Your task to perform on an android device: Open Chrome and go to settings Image 0: 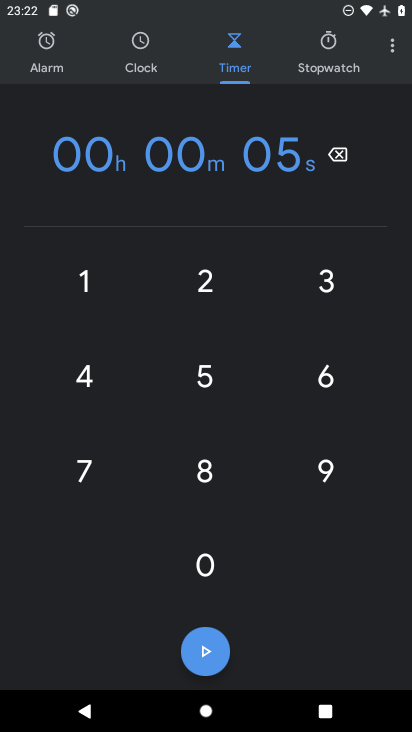
Step 0: press home button
Your task to perform on an android device: Open Chrome and go to settings Image 1: 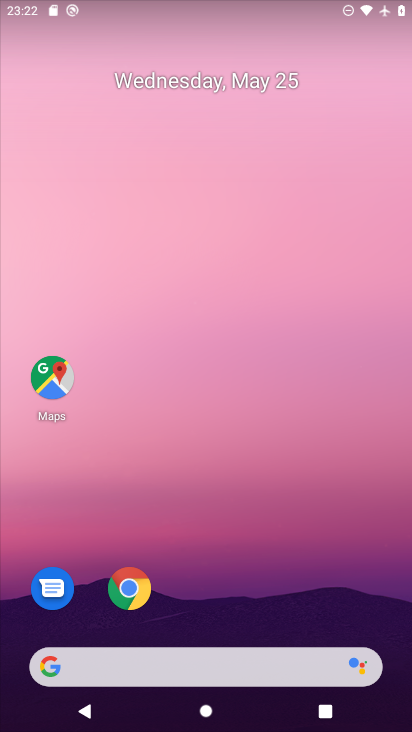
Step 1: drag from (270, 546) to (316, 120)
Your task to perform on an android device: Open Chrome and go to settings Image 2: 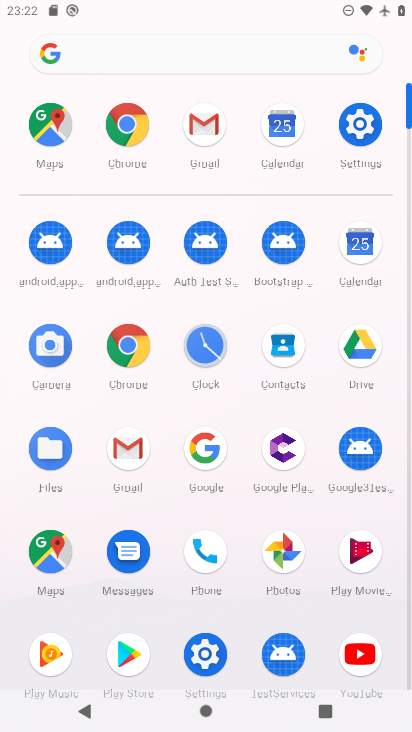
Step 2: click (133, 131)
Your task to perform on an android device: Open Chrome and go to settings Image 3: 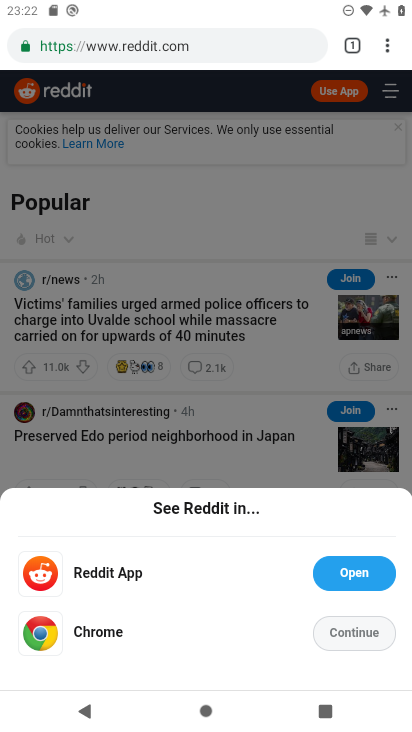
Step 3: click (384, 38)
Your task to perform on an android device: Open Chrome and go to settings Image 4: 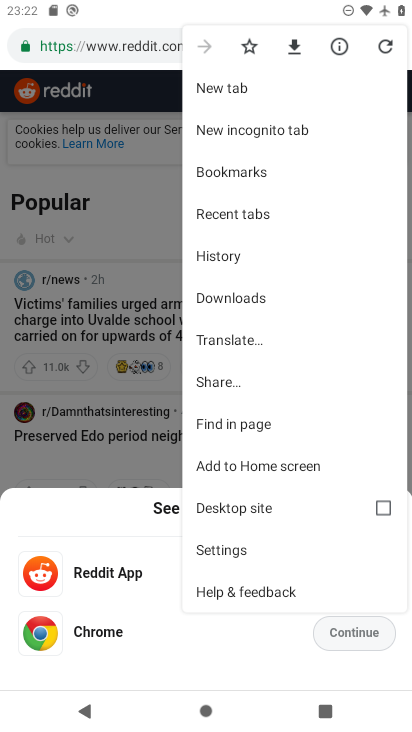
Step 4: click (218, 557)
Your task to perform on an android device: Open Chrome and go to settings Image 5: 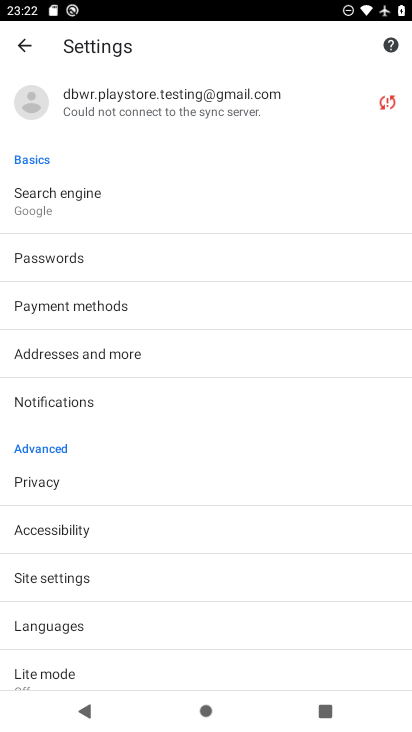
Step 5: task complete